Your task to perform on an android device: turn off location Image 0: 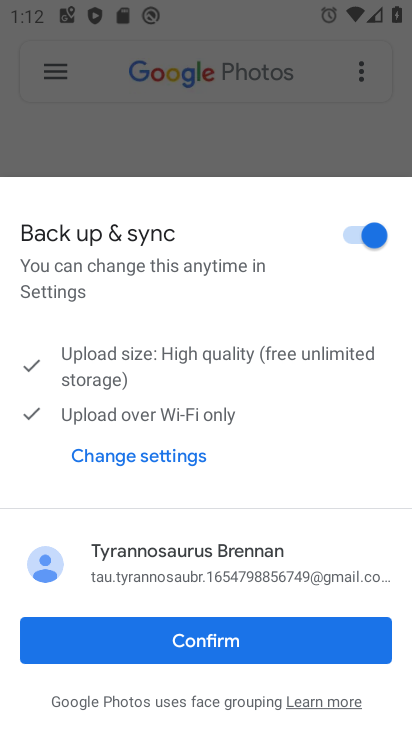
Step 0: press home button
Your task to perform on an android device: turn off location Image 1: 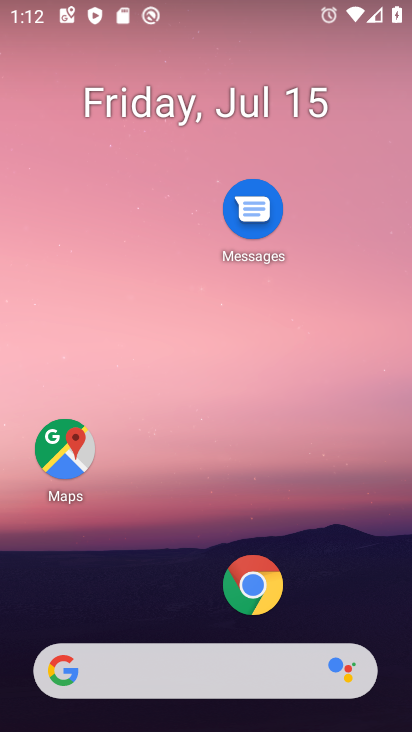
Step 1: drag from (183, 672) to (232, 13)
Your task to perform on an android device: turn off location Image 2: 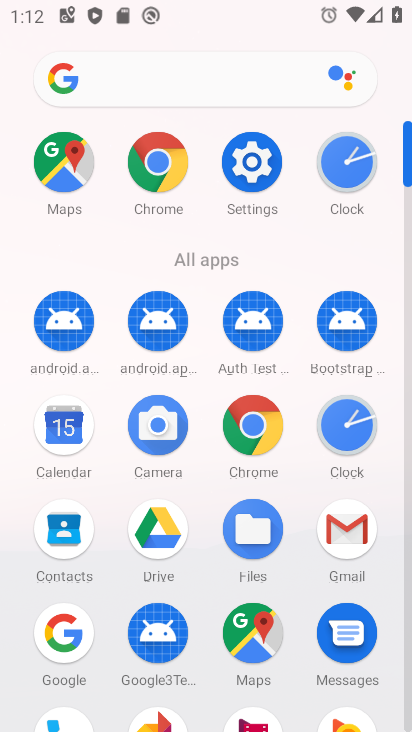
Step 2: click (253, 170)
Your task to perform on an android device: turn off location Image 3: 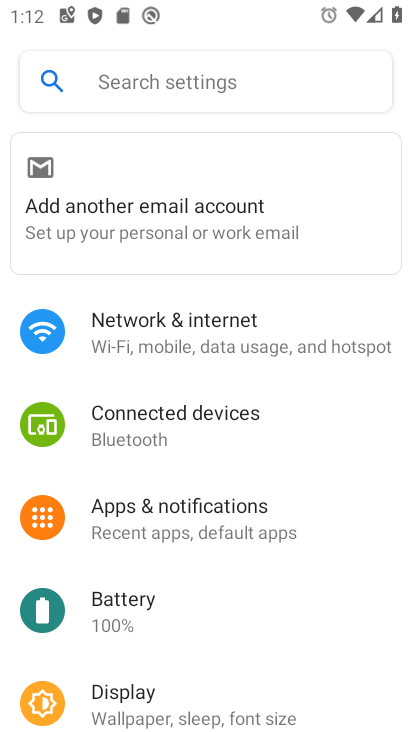
Step 3: drag from (274, 583) to (349, 123)
Your task to perform on an android device: turn off location Image 4: 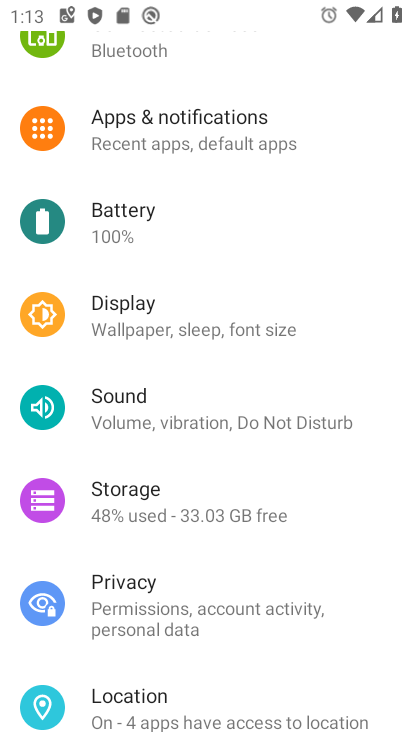
Step 4: drag from (295, 661) to (336, 236)
Your task to perform on an android device: turn off location Image 5: 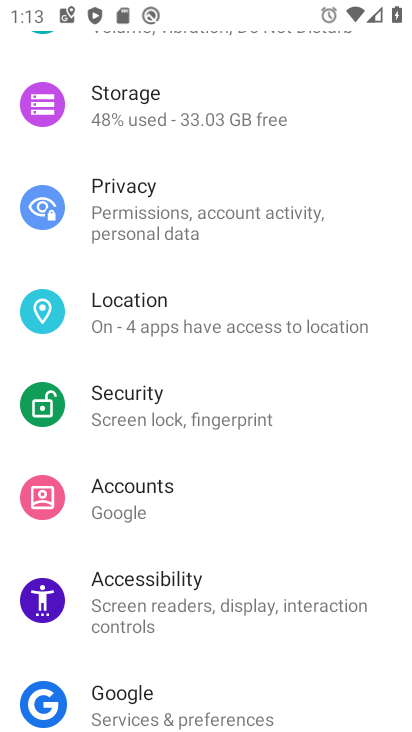
Step 5: click (165, 315)
Your task to perform on an android device: turn off location Image 6: 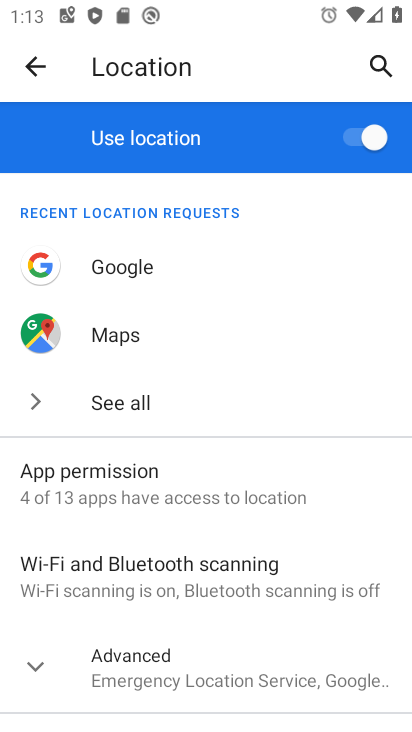
Step 6: click (357, 139)
Your task to perform on an android device: turn off location Image 7: 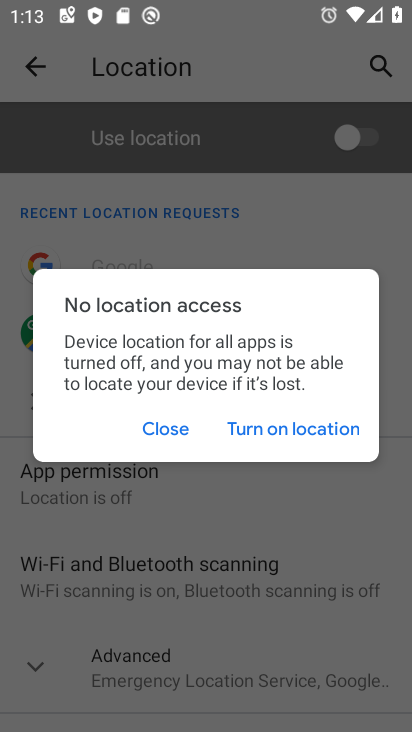
Step 7: click (173, 429)
Your task to perform on an android device: turn off location Image 8: 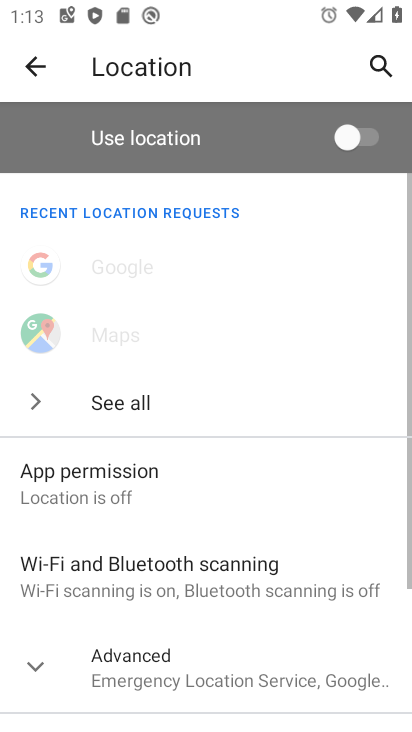
Step 8: task complete